Your task to perform on an android device: Open Google Chrome Image 0: 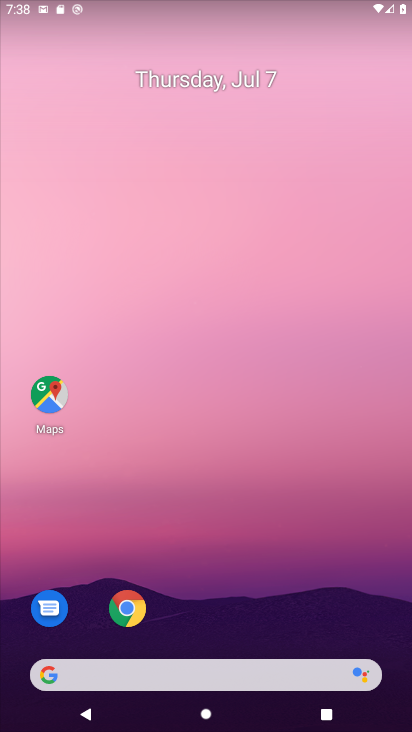
Step 0: click (131, 615)
Your task to perform on an android device: Open Google Chrome Image 1: 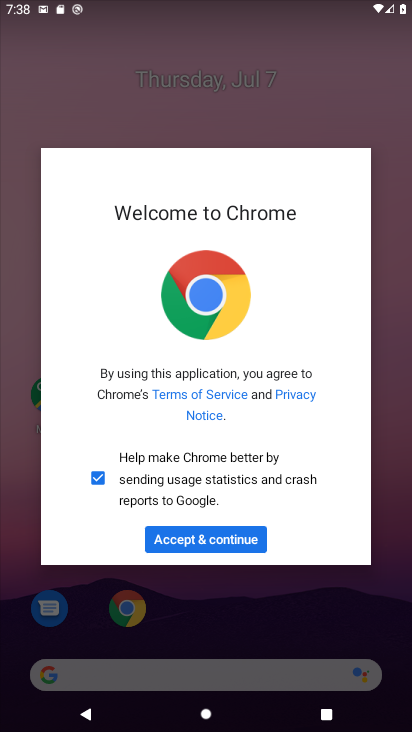
Step 1: click (200, 535)
Your task to perform on an android device: Open Google Chrome Image 2: 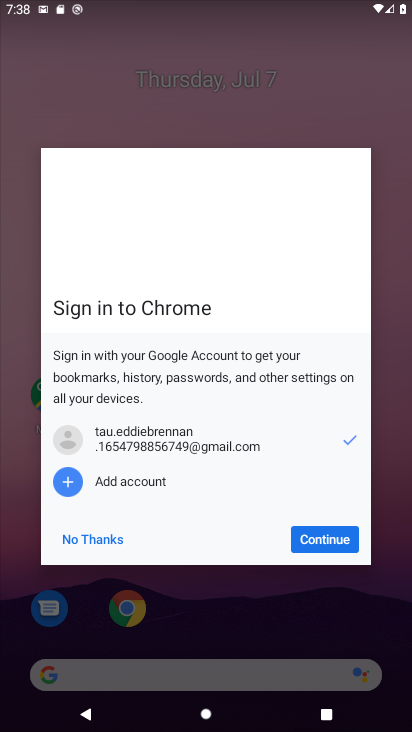
Step 2: click (320, 541)
Your task to perform on an android device: Open Google Chrome Image 3: 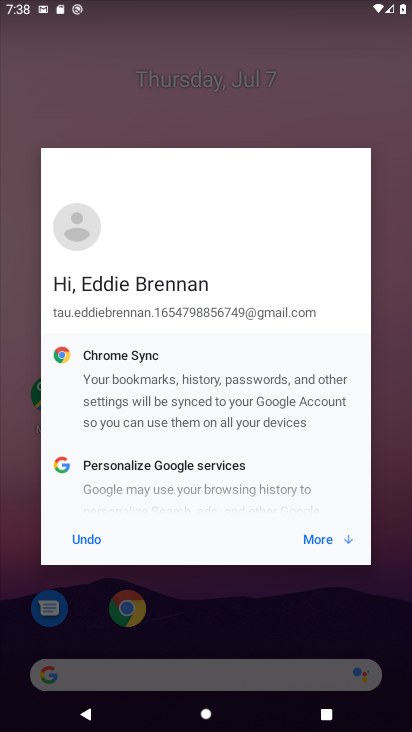
Step 3: click (320, 541)
Your task to perform on an android device: Open Google Chrome Image 4: 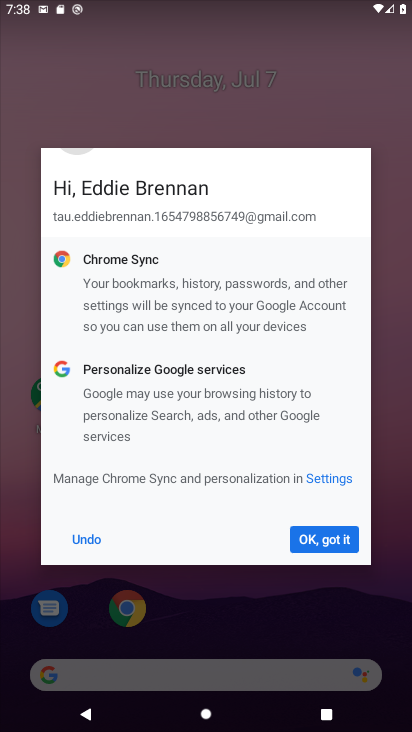
Step 4: click (320, 541)
Your task to perform on an android device: Open Google Chrome Image 5: 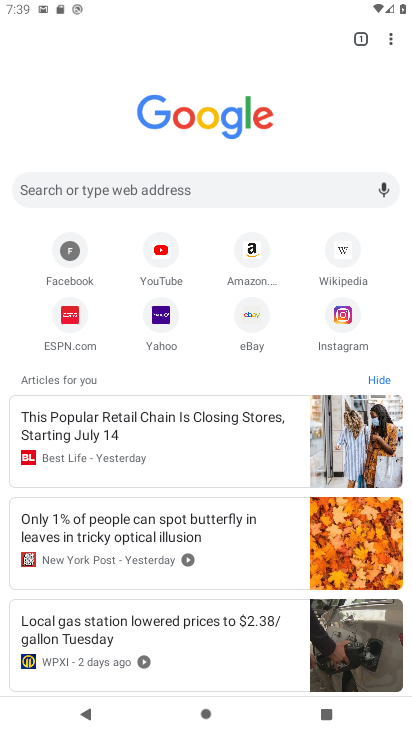
Step 5: task complete